Your task to perform on an android device: open wifi settings Image 0: 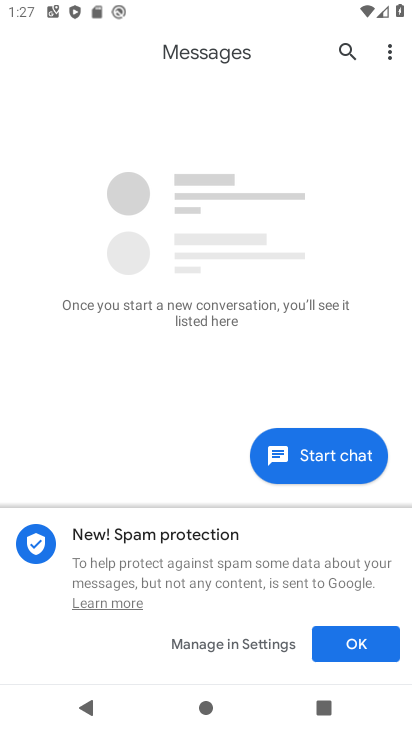
Step 0: drag from (231, 611) to (220, 107)
Your task to perform on an android device: open wifi settings Image 1: 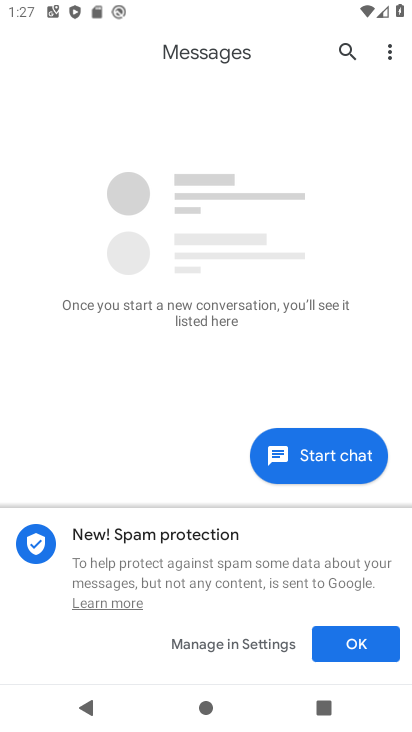
Step 1: click (244, 643)
Your task to perform on an android device: open wifi settings Image 2: 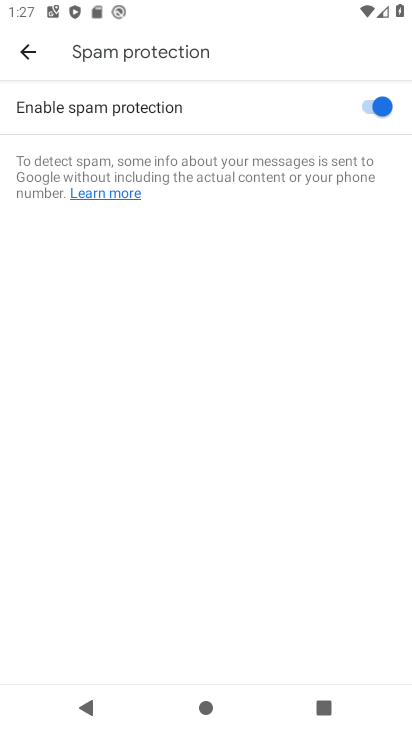
Step 2: press home button
Your task to perform on an android device: open wifi settings Image 3: 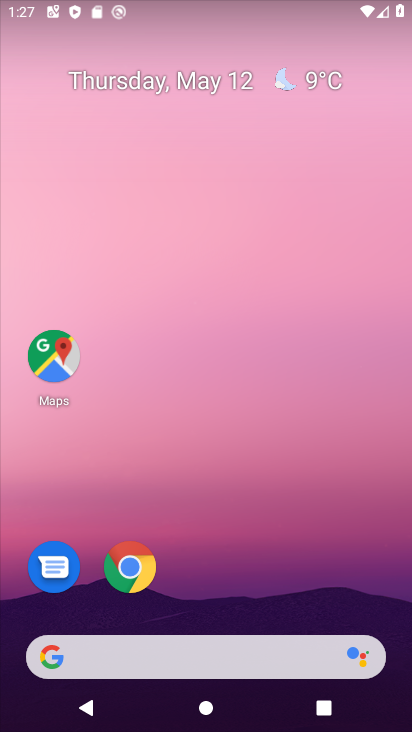
Step 3: drag from (213, 596) to (240, 87)
Your task to perform on an android device: open wifi settings Image 4: 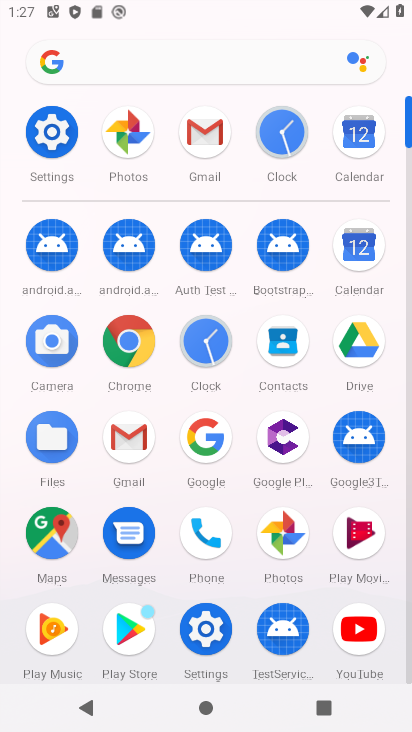
Step 4: click (50, 129)
Your task to perform on an android device: open wifi settings Image 5: 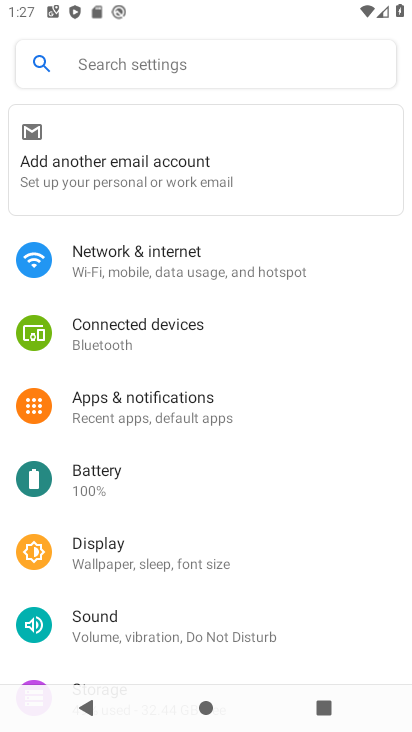
Step 5: click (214, 253)
Your task to perform on an android device: open wifi settings Image 6: 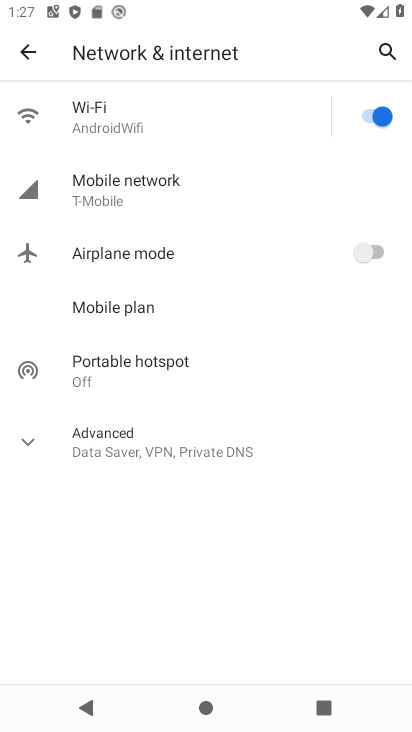
Step 6: click (197, 121)
Your task to perform on an android device: open wifi settings Image 7: 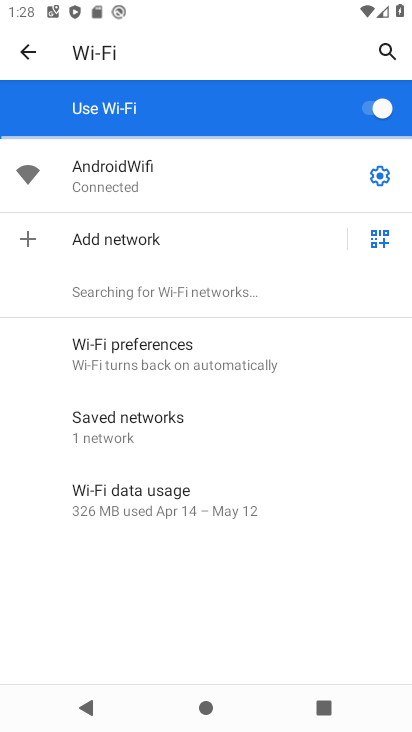
Step 7: task complete